Your task to perform on an android device: Open the stopwatch Image 0: 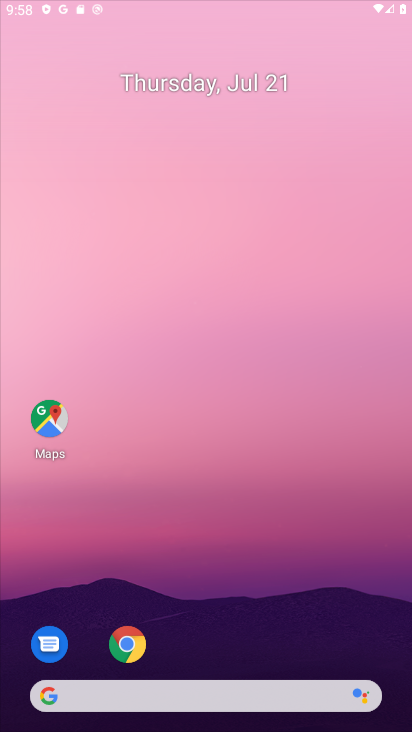
Step 0: press home button
Your task to perform on an android device: Open the stopwatch Image 1: 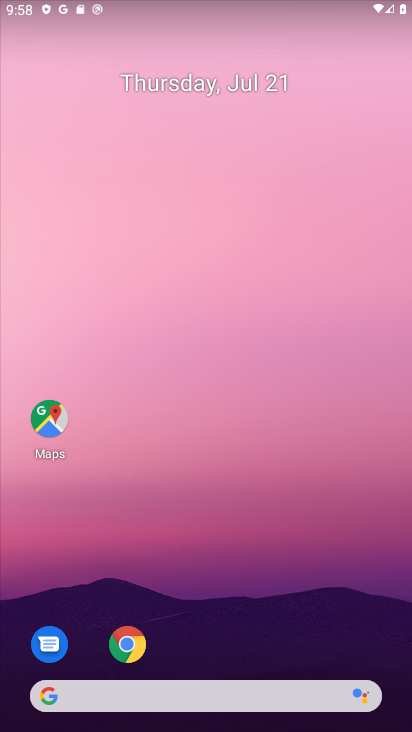
Step 1: drag from (204, 661) to (230, 134)
Your task to perform on an android device: Open the stopwatch Image 2: 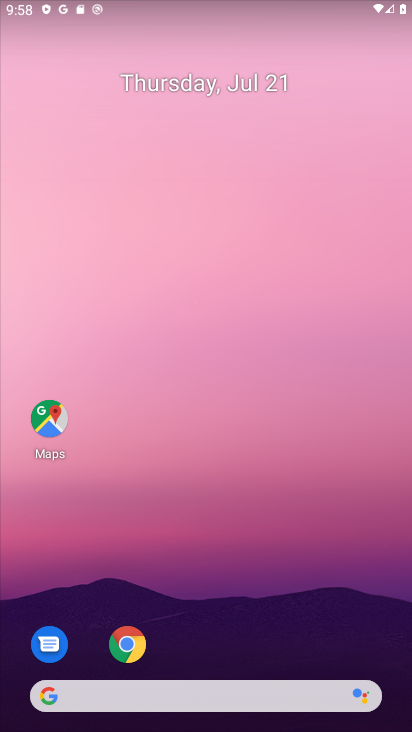
Step 2: drag from (234, 653) to (257, 260)
Your task to perform on an android device: Open the stopwatch Image 3: 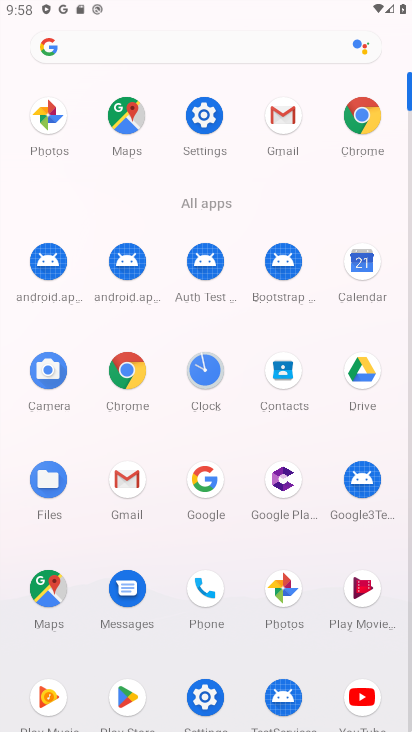
Step 3: click (202, 365)
Your task to perform on an android device: Open the stopwatch Image 4: 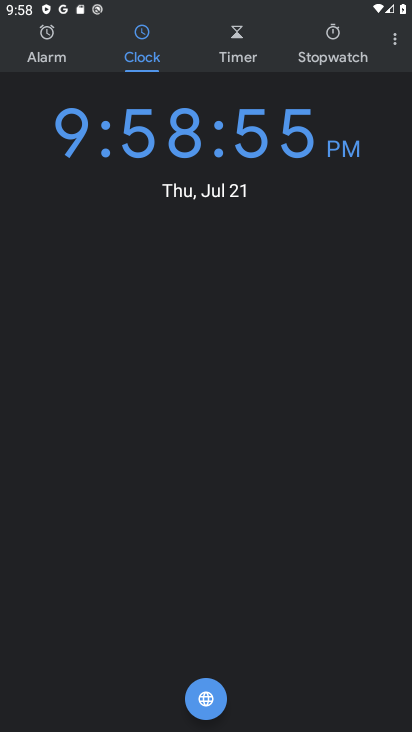
Step 4: click (331, 37)
Your task to perform on an android device: Open the stopwatch Image 5: 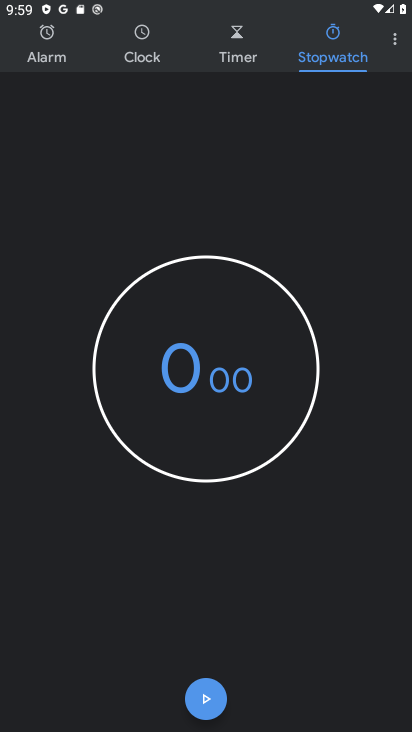
Step 5: click (203, 693)
Your task to perform on an android device: Open the stopwatch Image 6: 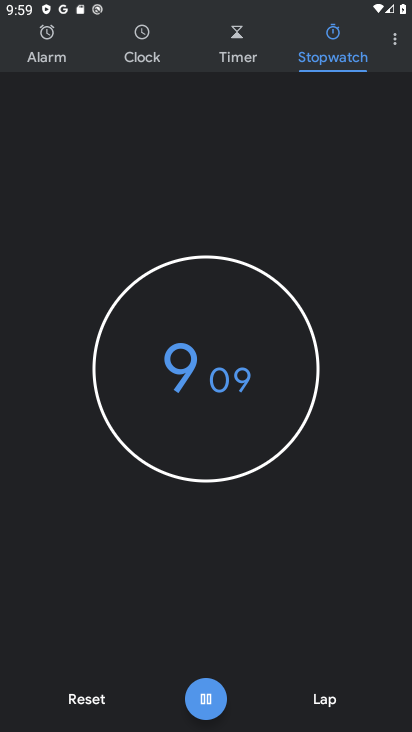
Step 6: task complete